Your task to perform on an android device: star an email in the gmail app Image 0: 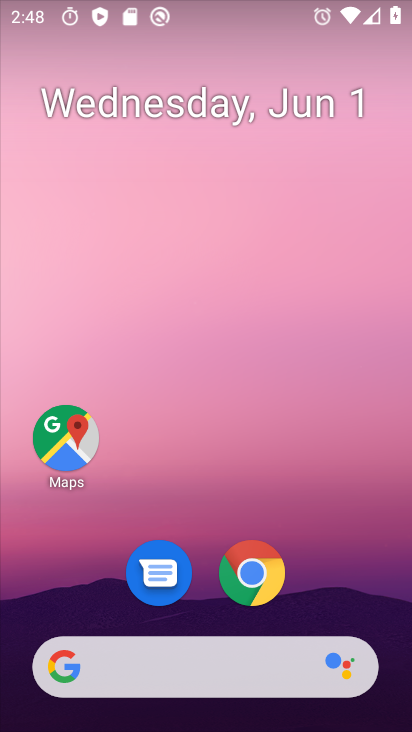
Step 0: drag from (191, 609) to (209, 179)
Your task to perform on an android device: star an email in the gmail app Image 1: 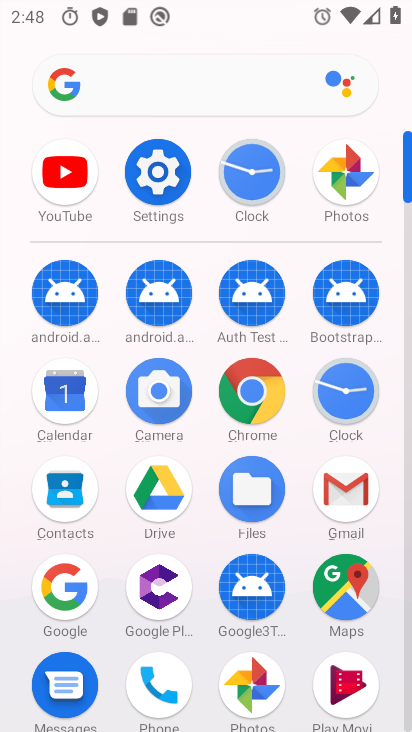
Step 1: click (356, 477)
Your task to perform on an android device: star an email in the gmail app Image 2: 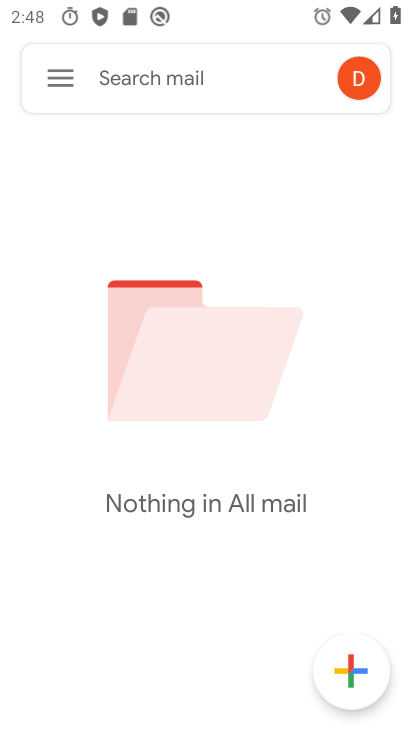
Step 2: click (70, 86)
Your task to perform on an android device: star an email in the gmail app Image 3: 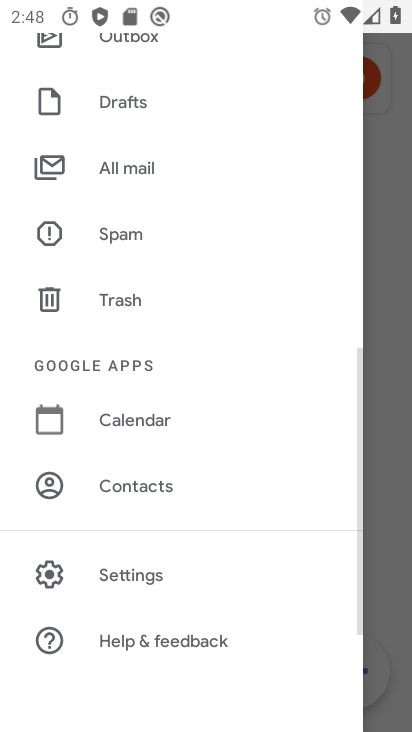
Step 3: click (140, 177)
Your task to perform on an android device: star an email in the gmail app Image 4: 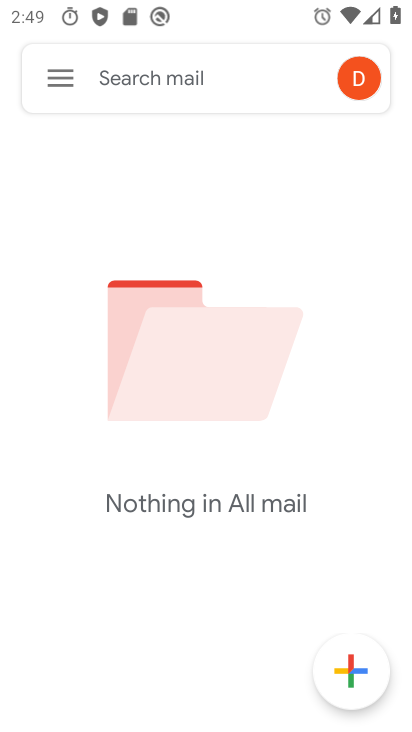
Step 4: task complete